Your task to perform on an android device: Search for Italian restaurants on Maps Image 0: 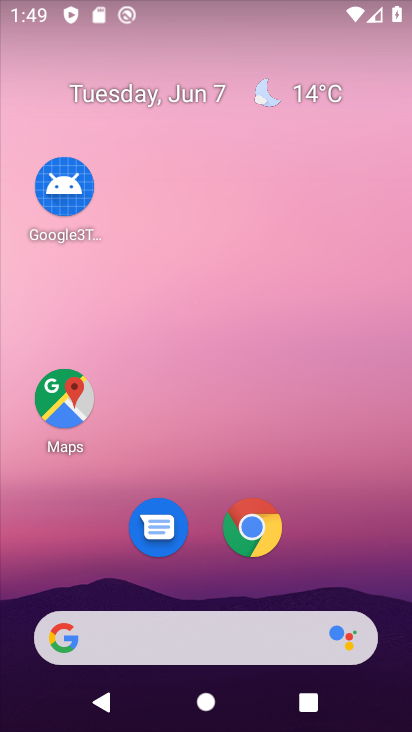
Step 0: click (65, 394)
Your task to perform on an android device: Search for Italian restaurants on Maps Image 1: 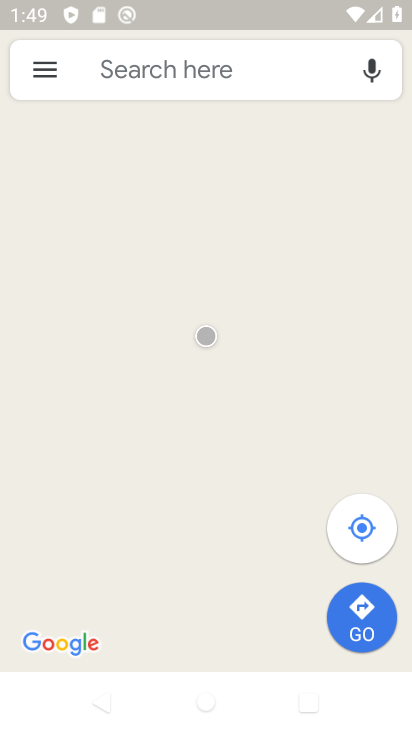
Step 1: click (150, 61)
Your task to perform on an android device: Search for Italian restaurants on Maps Image 2: 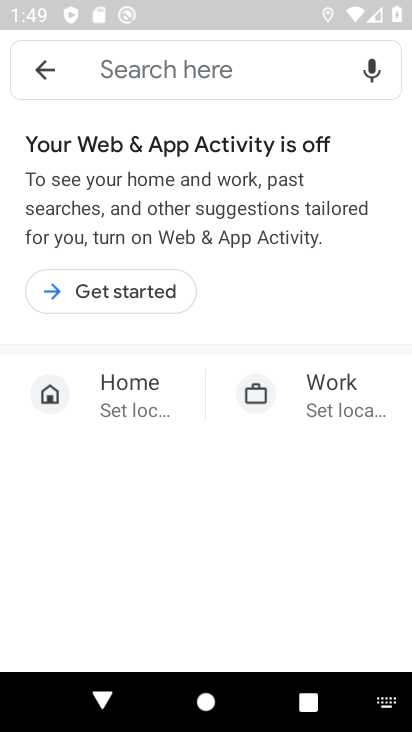
Step 2: click (168, 64)
Your task to perform on an android device: Search for Italian restaurants on Maps Image 3: 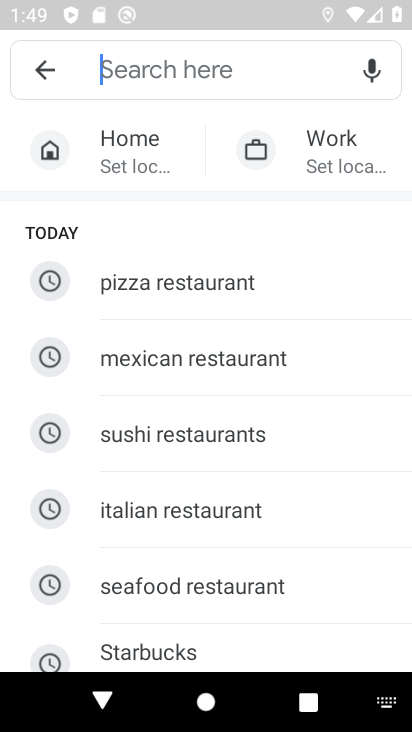
Step 3: click (250, 507)
Your task to perform on an android device: Search for Italian restaurants on Maps Image 4: 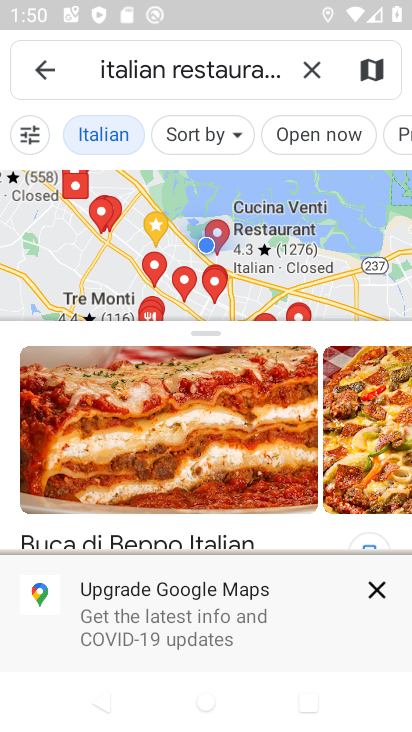
Step 4: task complete